Your task to perform on an android device: Go to battery settings Image 0: 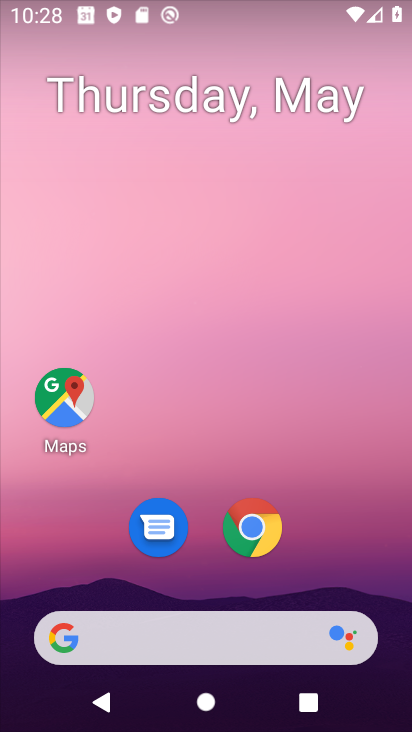
Step 0: drag from (230, 713) to (232, 138)
Your task to perform on an android device: Go to battery settings Image 1: 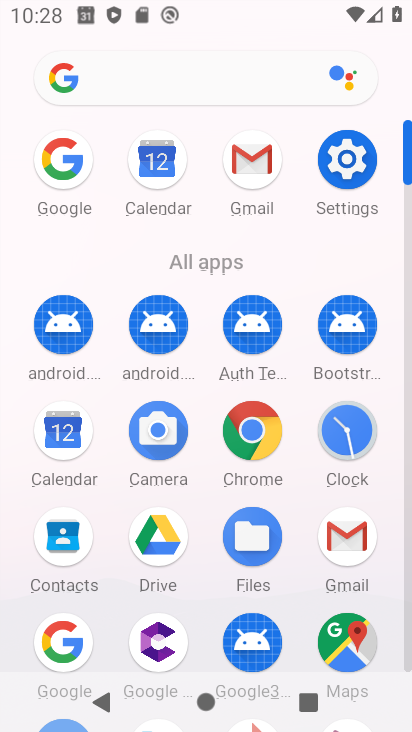
Step 1: click (352, 154)
Your task to perform on an android device: Go to battery settings Image 2: 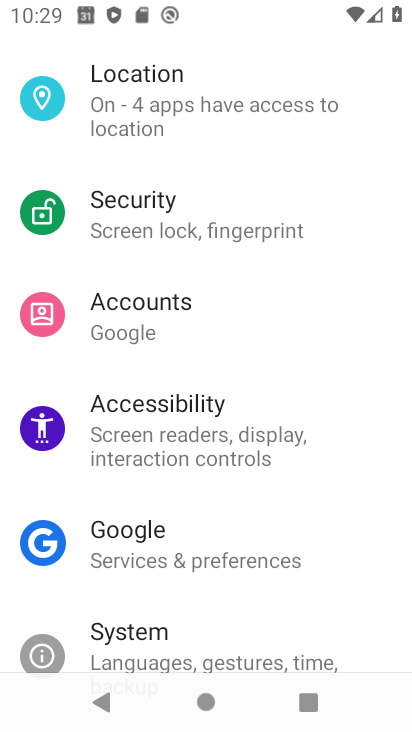
Step 2: drag from (267, 170) to (268, 548)
Your task to perform on an android device: Go to battery settings Image 3: 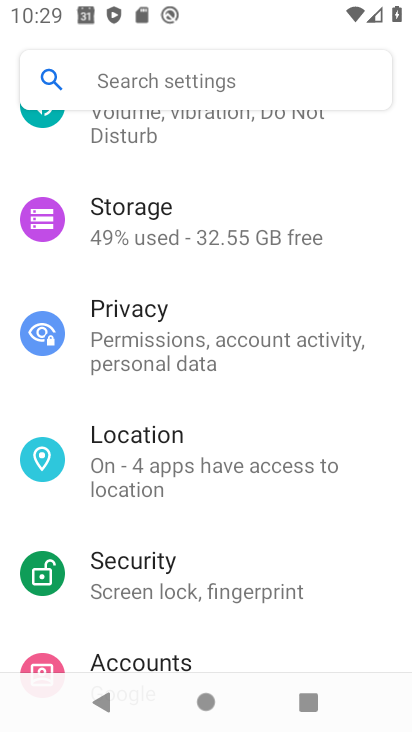
Step 3: drag from (221, 189) to (219, 592)
Your task to perform on an android device: Go to battery settings Image 4: 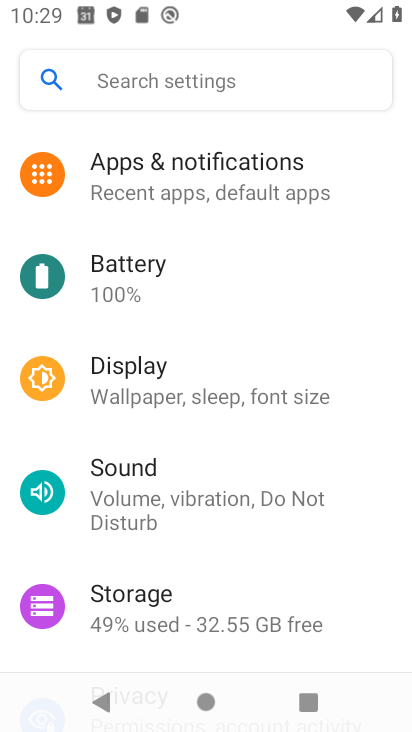
Step 4: click (114, 269)
Your task to perform on an android device: Go to battery settings Image 5: 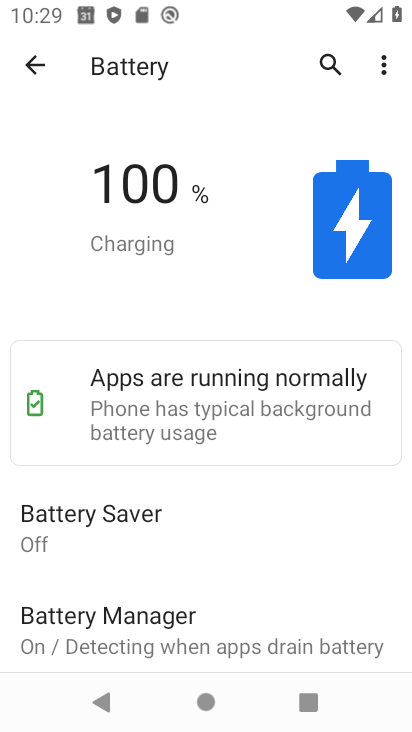
Step 5: task complete